Your task to perform on an android device: toggle show notifications on the lock screen Image 0: 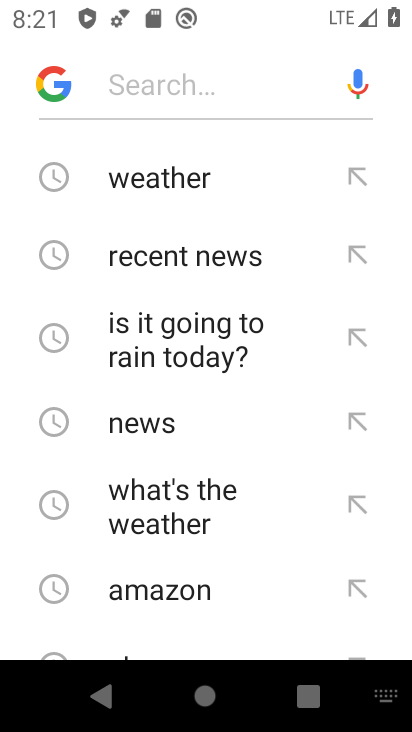
Step 0: press back button
Your task to perform on an android device: toggle show notifications on the lock screen Image 1: 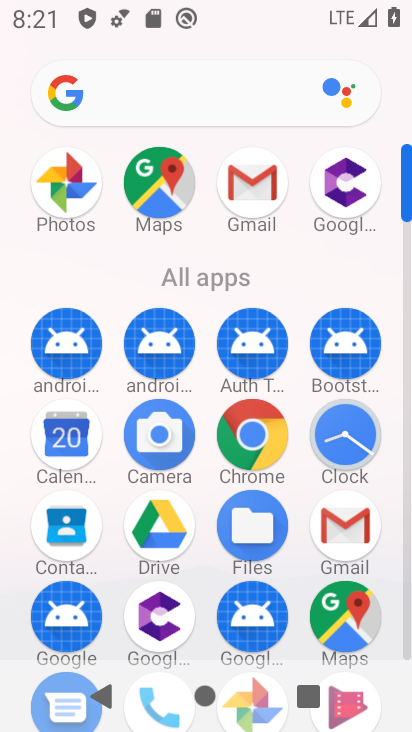
Step 1: drag from (144, 633) to (255, 121)
Your task to perform on an android device: toggle show notifications on the lock screen Image 2: 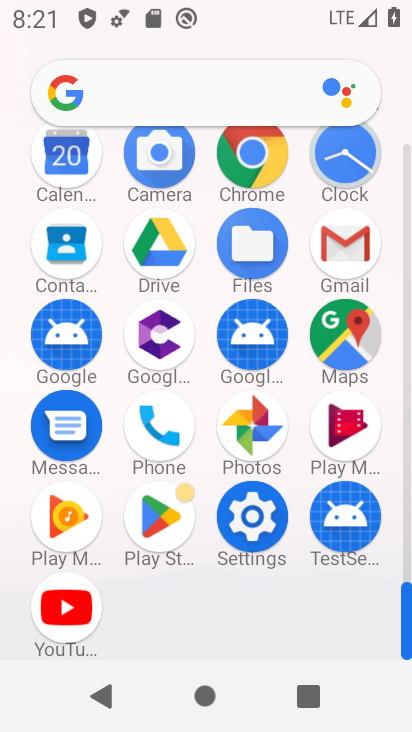
Step 2: click (265, 522)
Your task to perform on an android device: toggle show notifications on the lock screen Image 3: 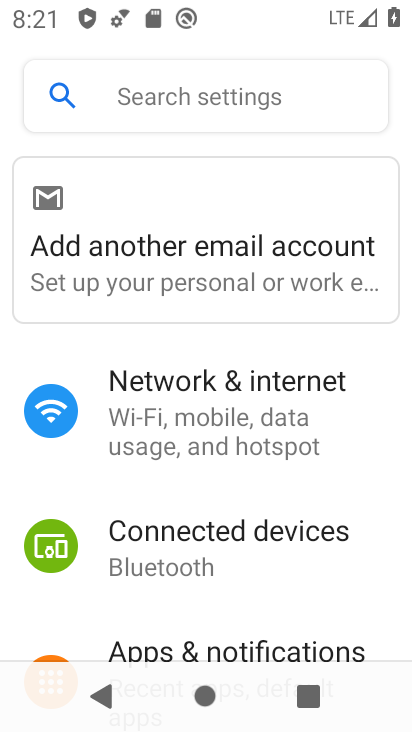
Step 3: drag from (185, 563) to (239, 237)
Your task to perform on an android device: toggle show notifications on the lock screen Image 4: 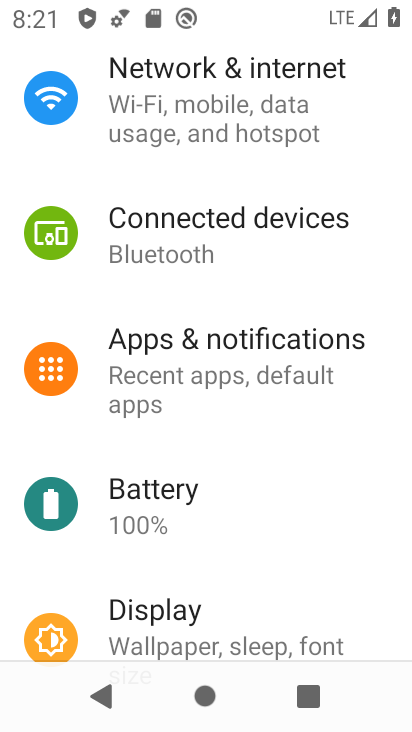
Step 4: click (201, 359)
Your task to perform on an android device: toggle show notifications on the lock screen Image 5: 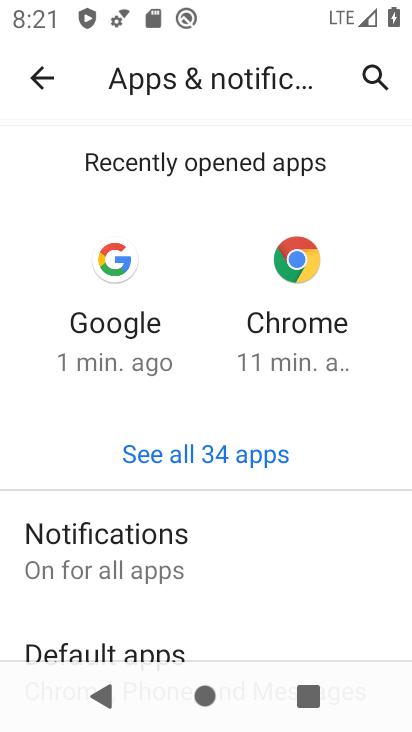
Step 5: click (143, 554)
Your task to perform on an android device: toggle show notifications on the lock screen Image 6: 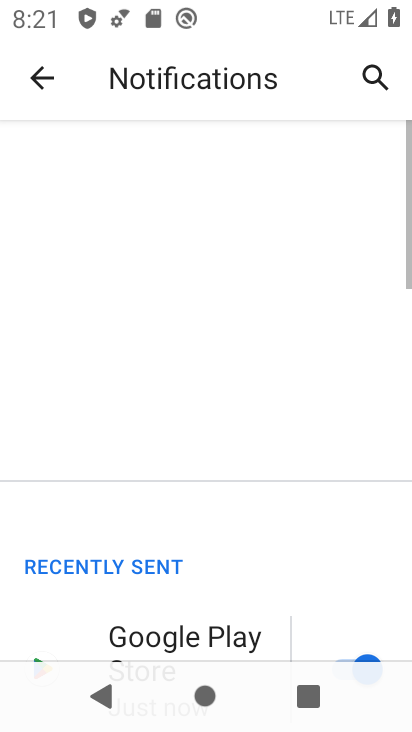
Step 6: drag from (164, 466) to (245, 52)
Your task to perform on an android device: toggle show notifications on the lock screen Image 7: 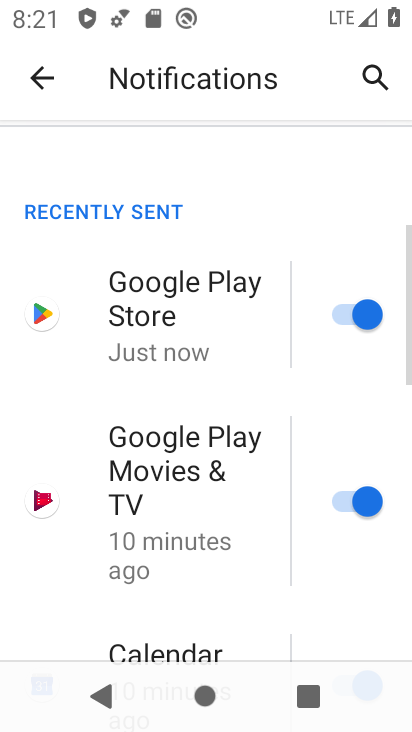
Step 7: drag from (184, 597) to (254, 97)
Your task to perform on an android device: toggle show notifications on the lock screen Image 8: 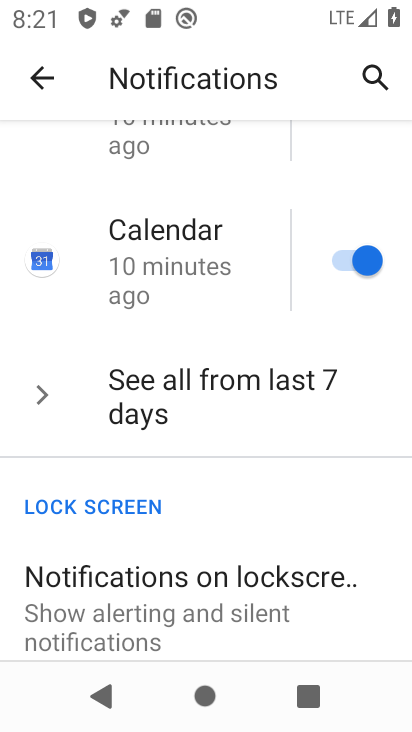
Step 8: click (191, 587)
Your task to perform on an android device: toggle show notifications on the lock screen Image 9: 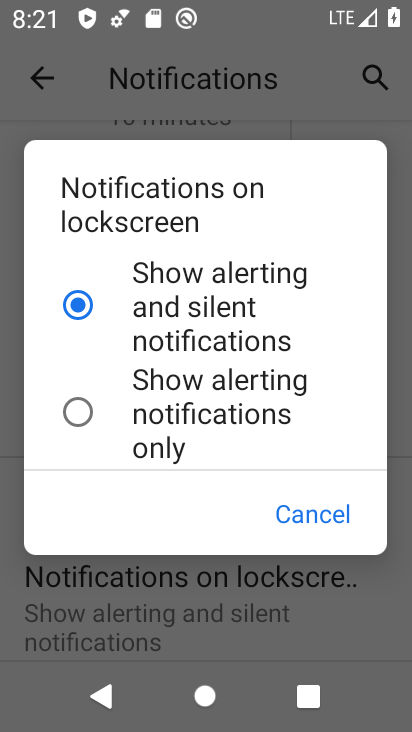
Step 9: drag from (178, 443) to (252, 58)
Your task to perform on an android device: toggle show notifications on the lock screen Image 10: 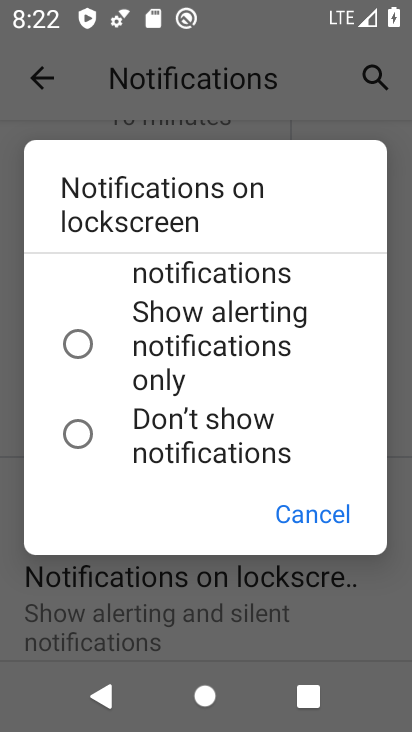
Step 10: drag from (200, 284) to (205, 552)
Your task to perform on an android device: toggle show notifications on the lock screen Image 11: 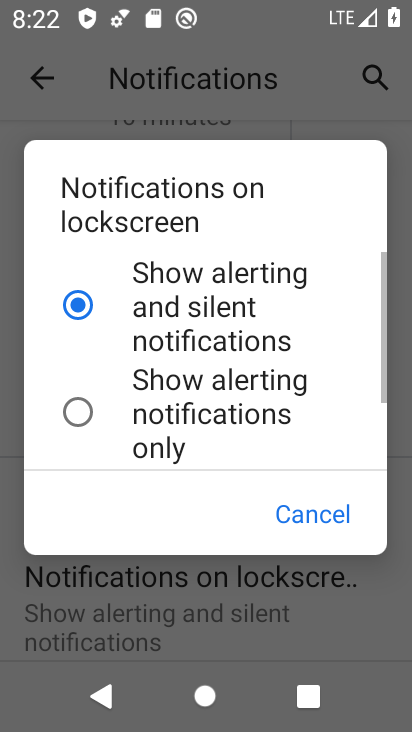
Step 11: click (129, 312)
Your task to perform on an android device: toggle show notifications on the lock screen Image 12: 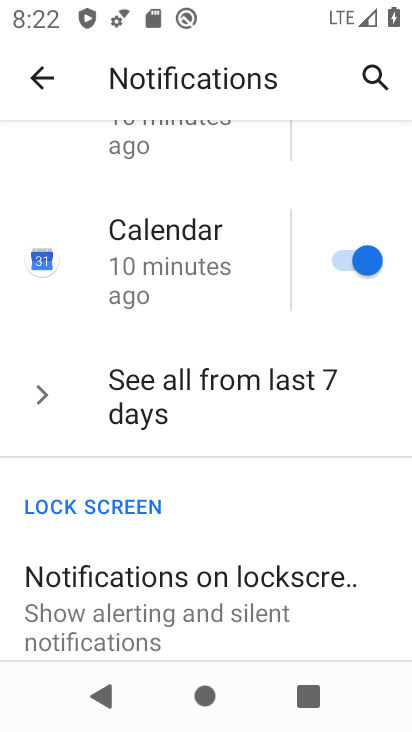
Step 12: task complete